Your task to perform on an android device: Open calendar and show me the third week of next month Image 0: 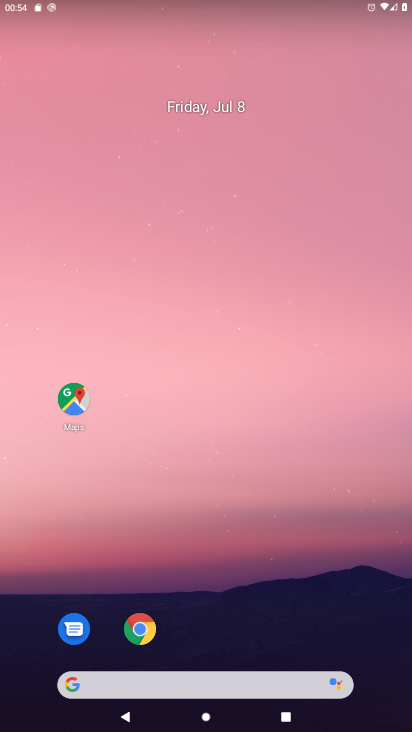
Step 0: drag from (247, 590) to (205, 140)
Your task to perform on an android device: Open calendar and show me the third week of next month Image 1: 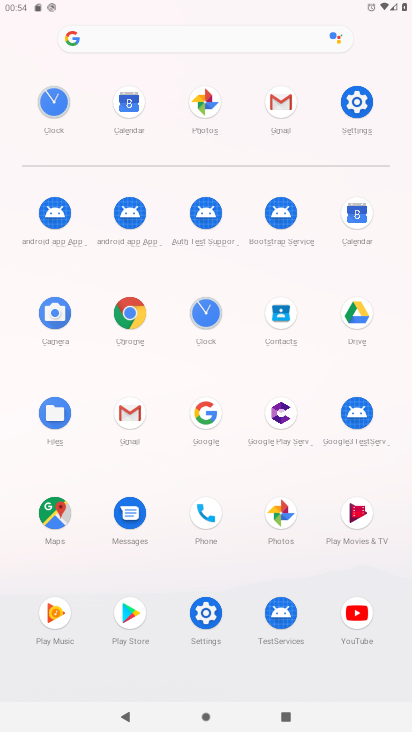
Step 1: click (357, 213)
Your task to perform on an android device: Open calendar and show me the third week of next month Image 2: 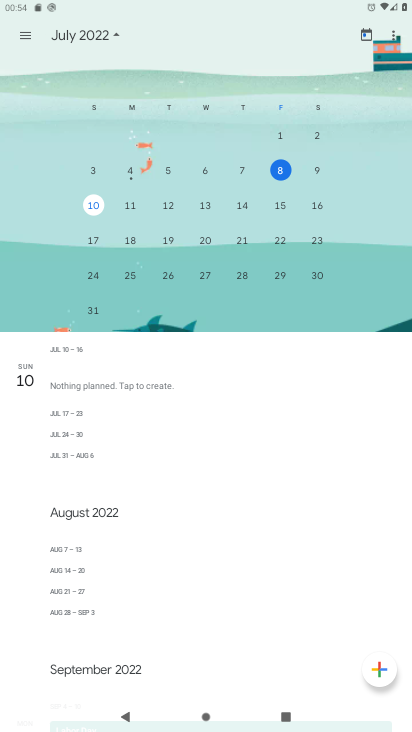
Step 2: click (282, 167)
Your task to perform on an android device: Open calendar and show me the third week of next month Image 3: 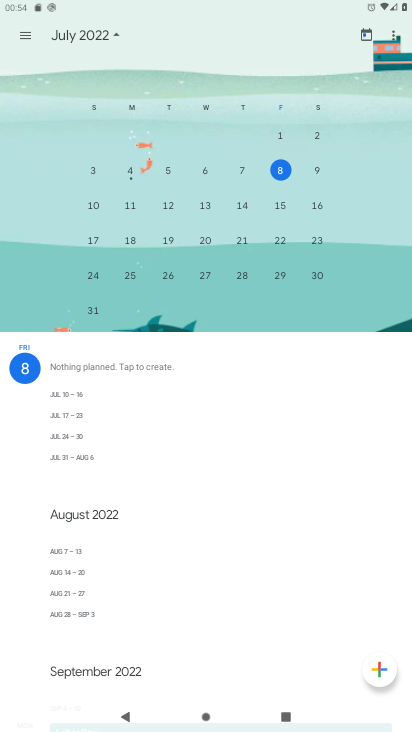
Step 3: drag from (378, 165) to (57, 141)
Your task to perform on an android device: Open calendar and show me the third week of next month Image 4: 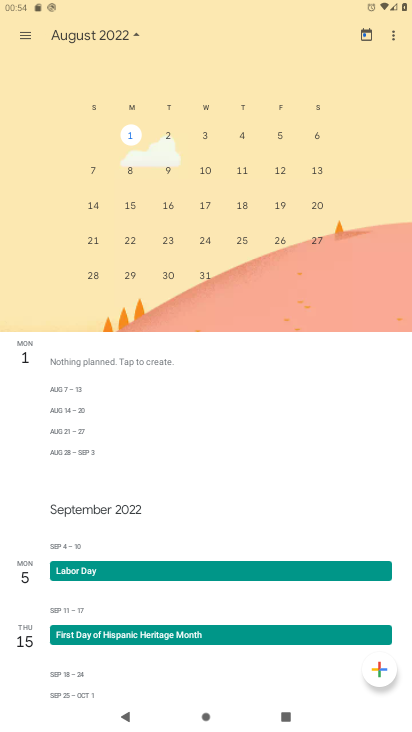
Step 4: click (90, 217)
Your task to perform on an android device: Open calendar and show me the third week of next month Image 5: 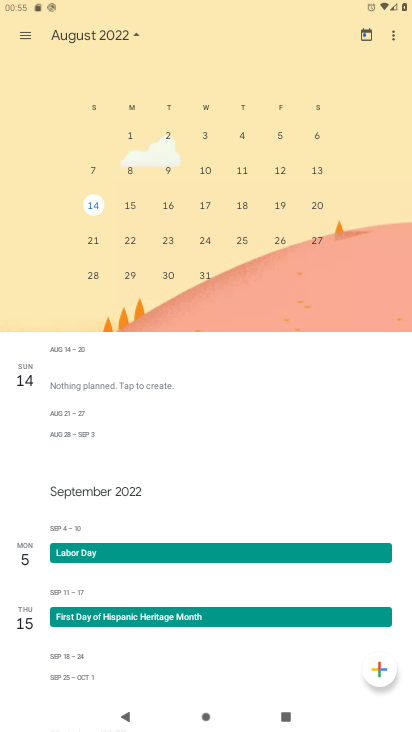
Step 5: task complete